Your task to perform on an android device: Search for seafood restaurants on Google Maps Image 0: 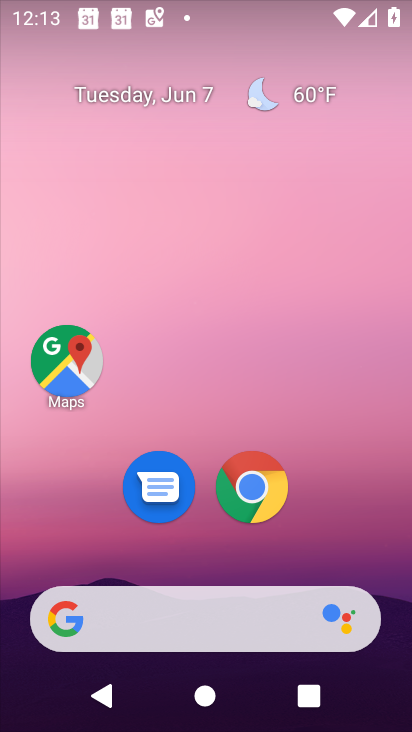
Step 0: drag from (389, 583) to (312, 253)
Your task to perform on an android device: Search for seafood restaurants on Google Maps Image 1: 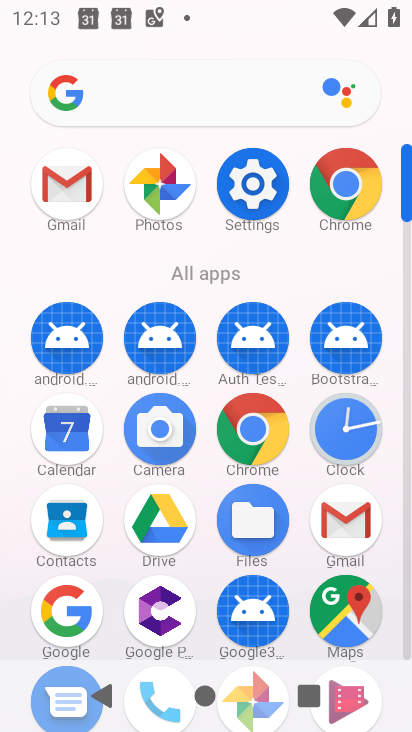
Step 1: click (354, 604)
Your task to perform on an android device: Search for seafood restaurants on Google Maps Image 2: 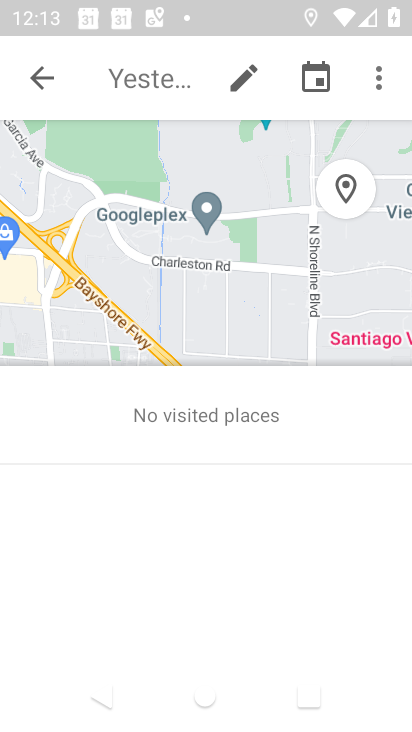
Step 2: click (50, 87)
Your task to perform on an android device: Search for seafood restaurants on Google Maps Image 3: 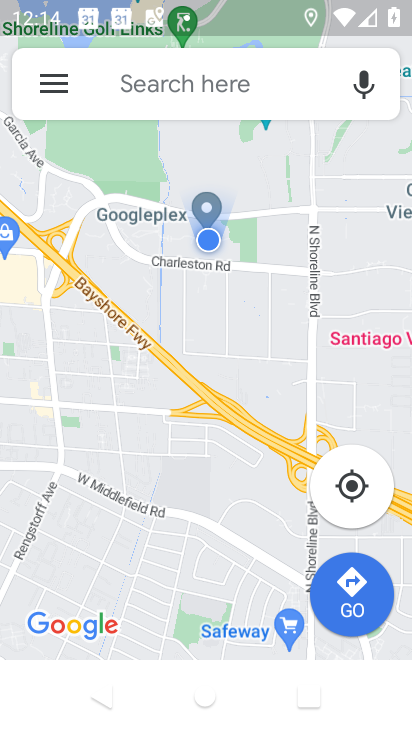
Step 3: click (198, 65)
Your task to perform on an android device: Search for seafood restaurants on Google Maps Image 4: 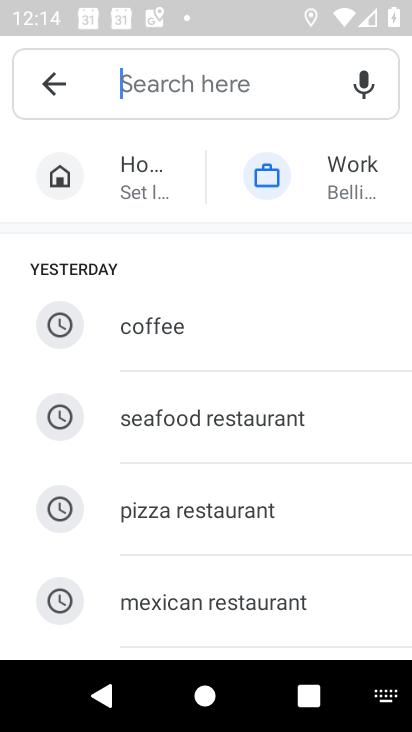
Step 4: drag from (246, 592) to (224, 373)
Your task to perform on an android device: Search for seafood restaurants on Google Maps Image 5: 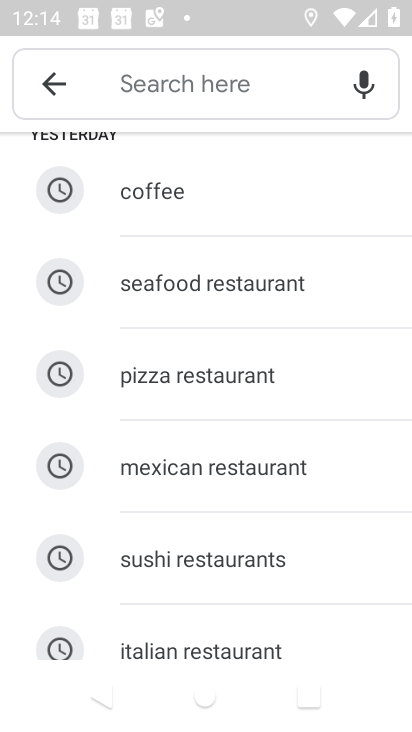
Step 5: click (196, 287)
Your task to perform on an android device: Search for seafood restaurants on Google Maps Image 6: 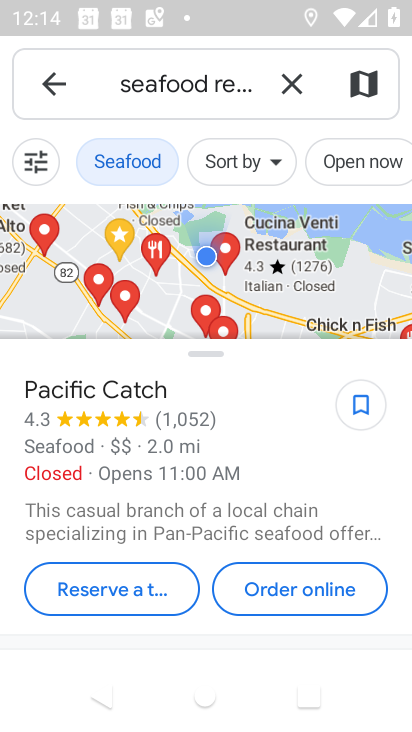
Step 6: task complete